Your task to perform on an android device: Go to notification settings Image 0: 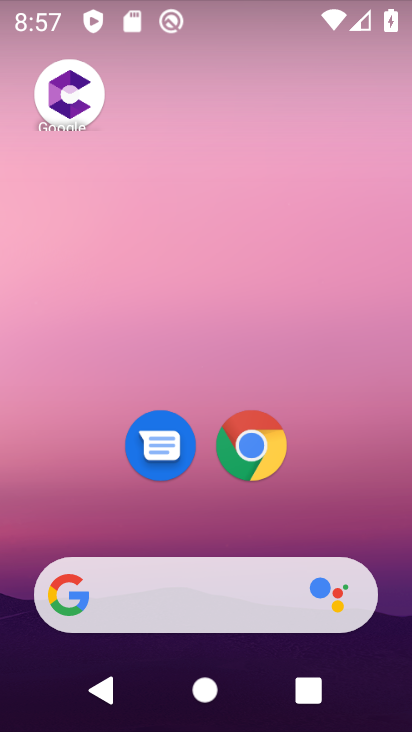
Step 0: drag from (332, 497) to (322, 0)
Your task to perform on an android device: Go to notification settings Image 1: 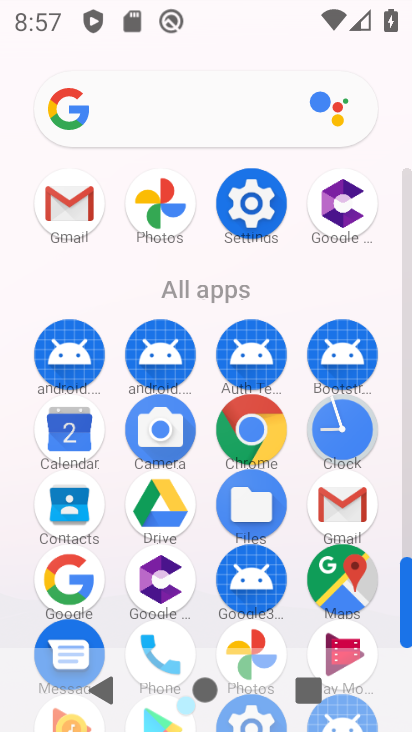
Step 1: click (259, 185)
Your task to perform on an android device: Go to notification settings Image 2: 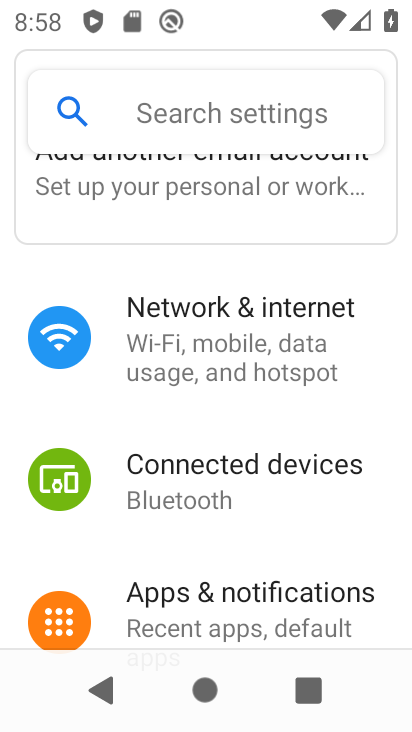
Step 2: click (223, 587)
Your task to perform on an android device: Go to notification settings Image 3: 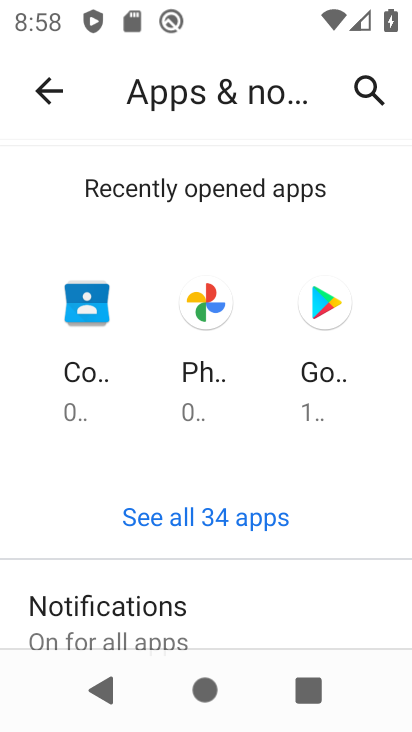
Step 3: task complete